Your task to perform on an android device: turn on wifi Image 0: 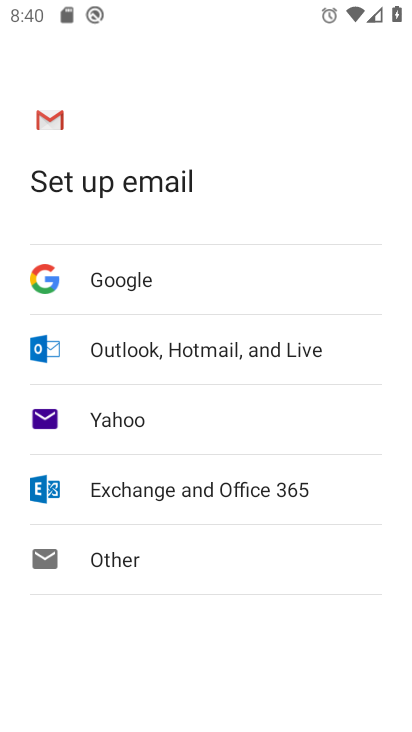
Step 0: press home button
Your task to perform on an android device: turn on wifi Image 1: 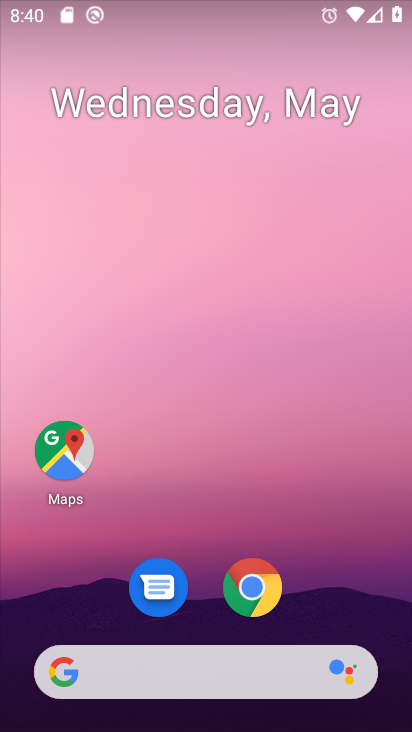
Step 1: drag from (202, 618) to (332, 61)
Your task to perform on an android device: turn on wifi Image 2: 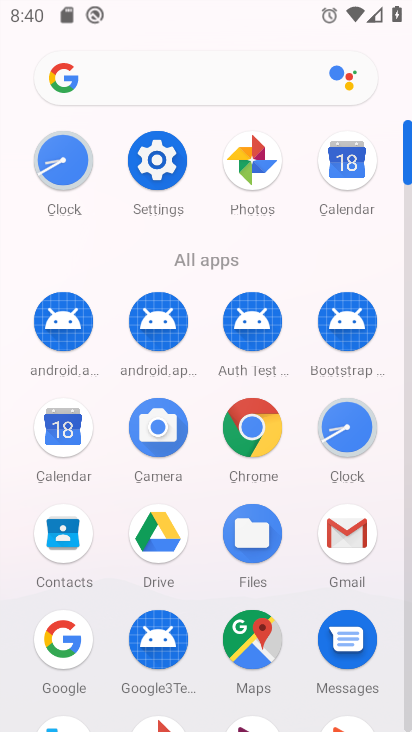
Step 2: click (166, 164)
Your task to perform on an android device: turn on wifi Image 3: 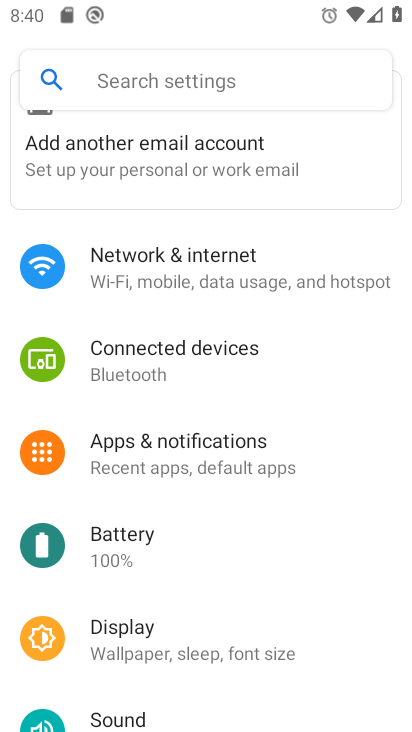
Step 3: click (187, 261)
Your task to perform on an android device: turn on wifi Image 4: 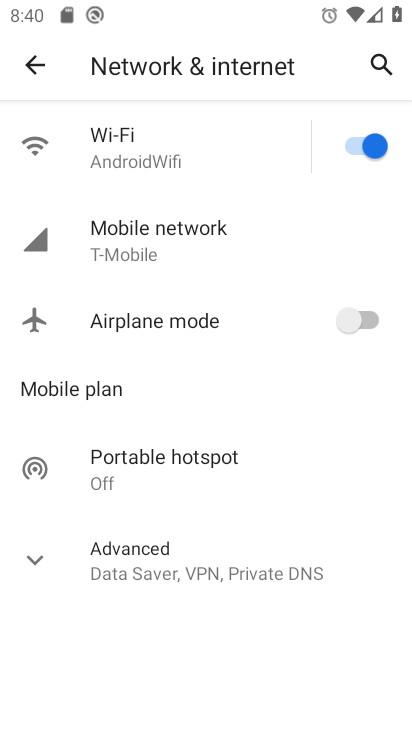
Step 4: click (187, 261)
Your task to perform on an android device: turn on wifi Image 5: 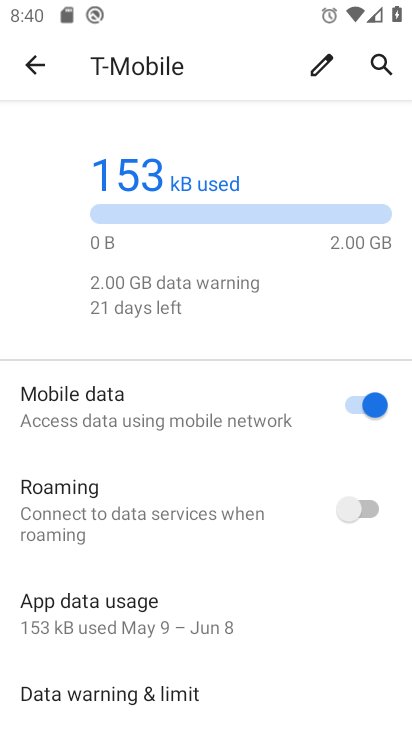
Step 5: click (25, 63)
Your task to perform on an android device: turn on wifi Image 6: 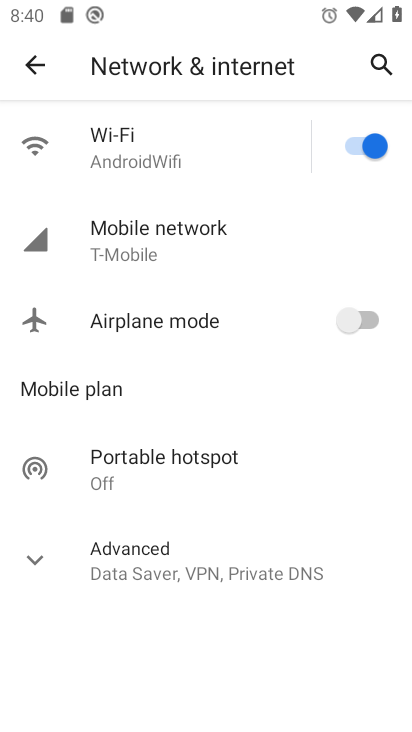
Step 6: task complete